Your task to perform on an android device: Clear all items from cart on target.com. Add razer deathadder to the cart on target.com, then select checkout. Image 0: 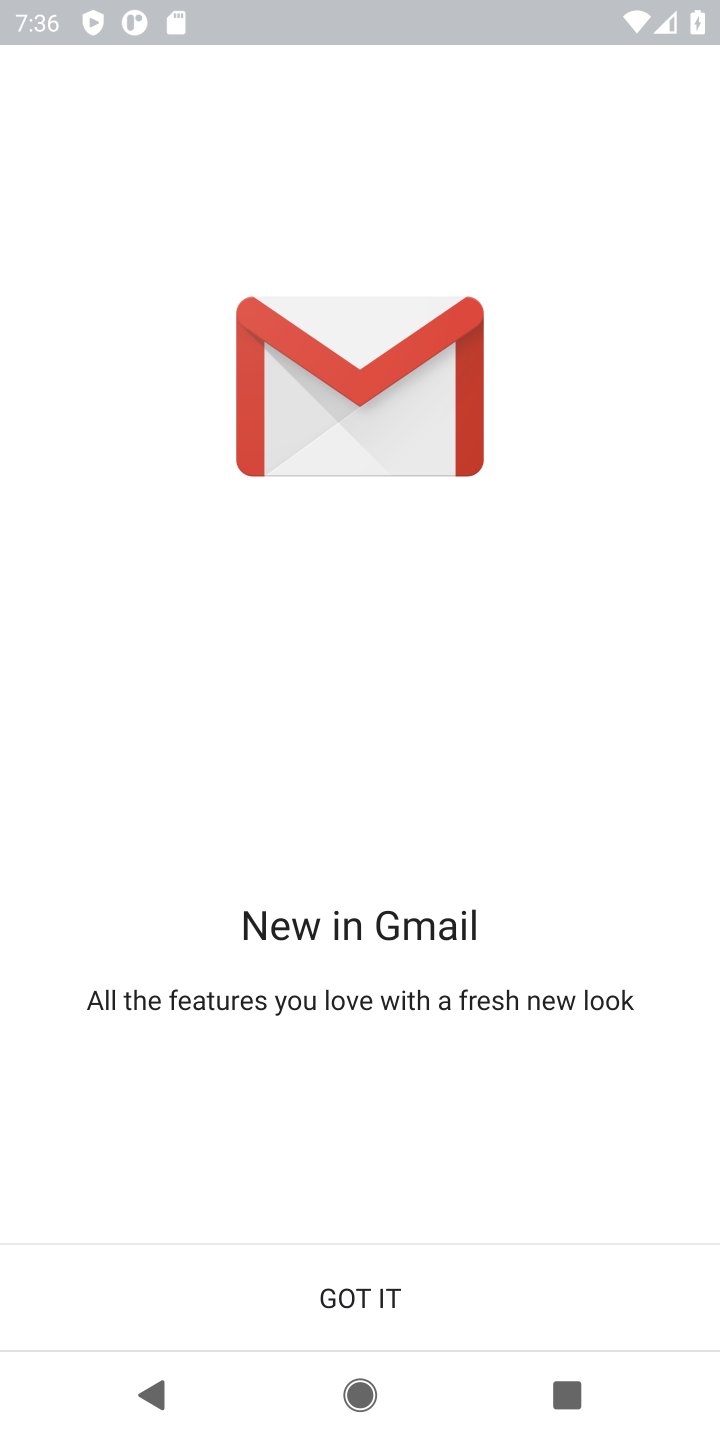
Step 0: press home button
Your task to perform on an android device: Clear all items from cart on target.com. Add razer deathadder to the cart on target.com, then select checkout. Image 1: 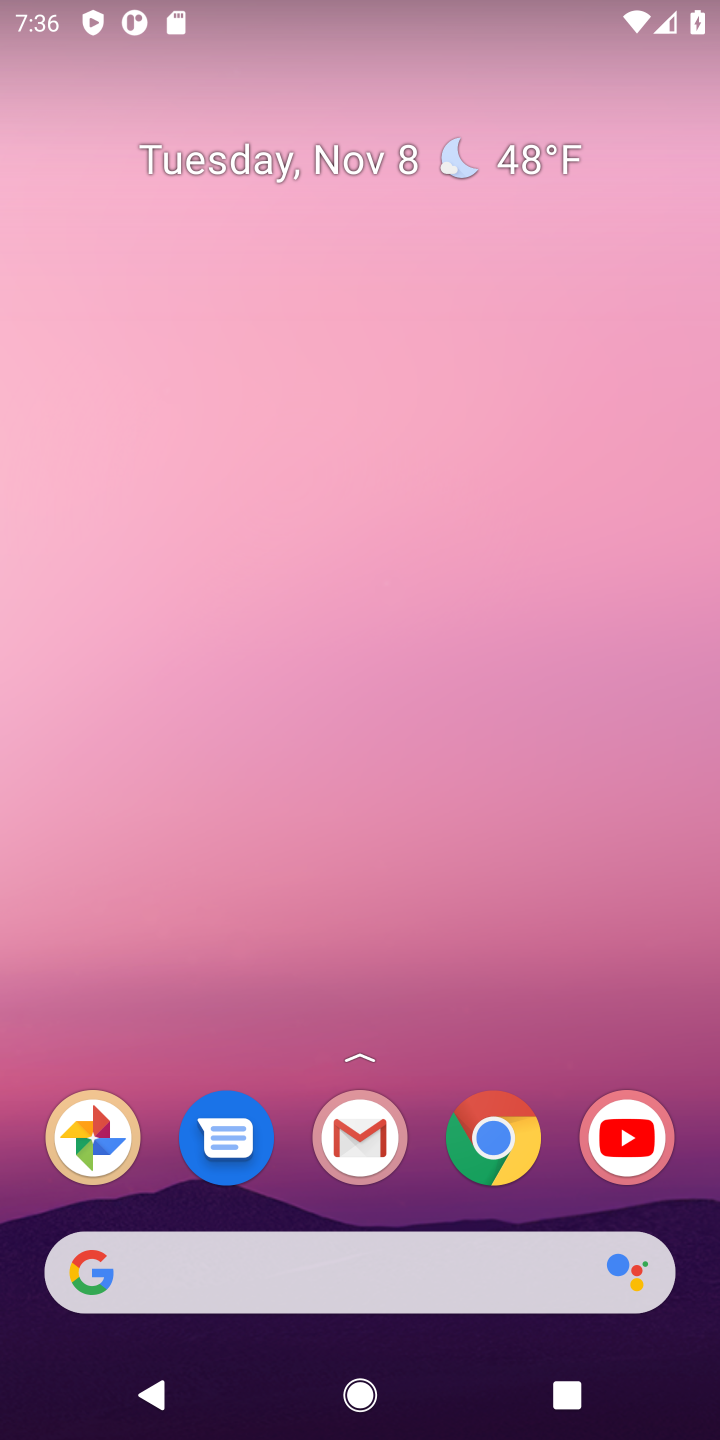
Step 1: click (483, 1135)
Your task to perform on an android device: Clear all items from cart on target.com. Add razer deathadder to the cart on target.com, then select checkout. Image 2: 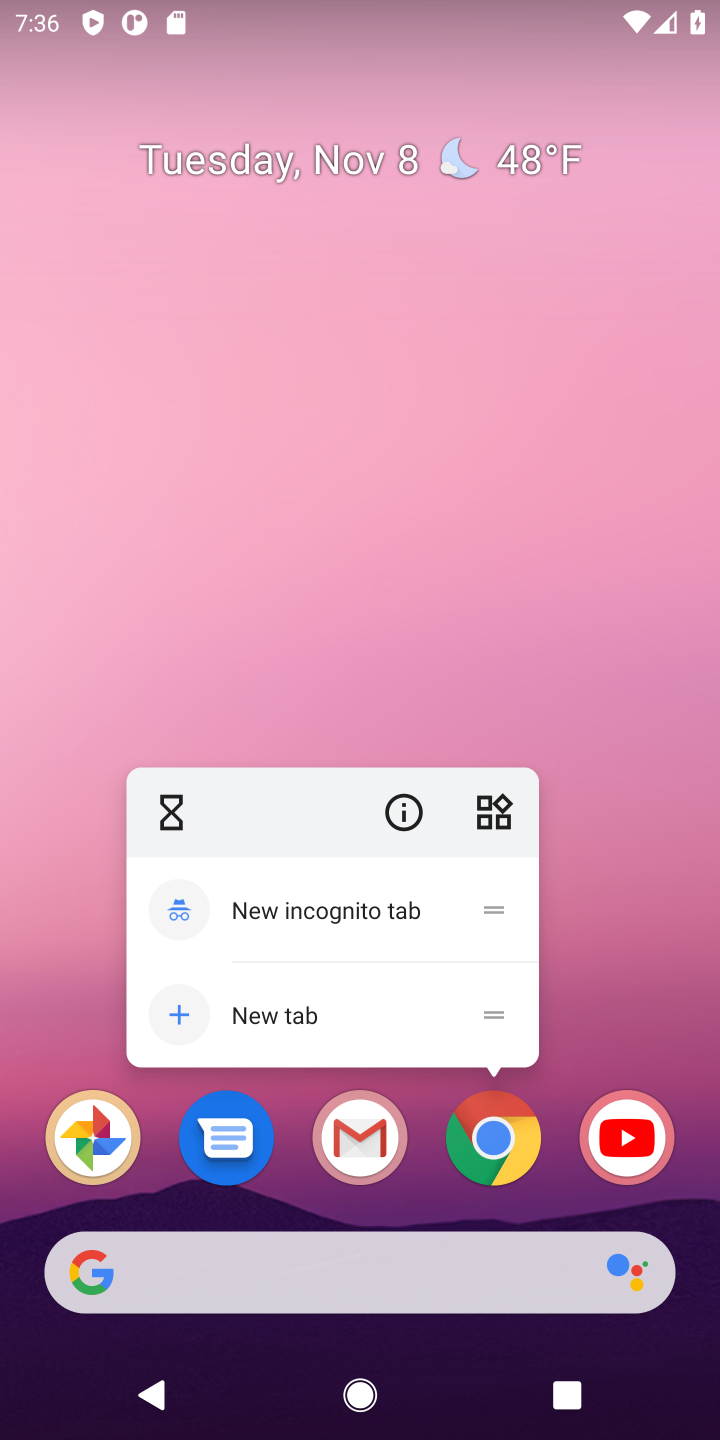
Step 2: click (506, 1151)
Your task to perform on an android device: Clear all items from cart on target.com. Add razer deathadder to the cart on target.com, then select checkout. Image 3: 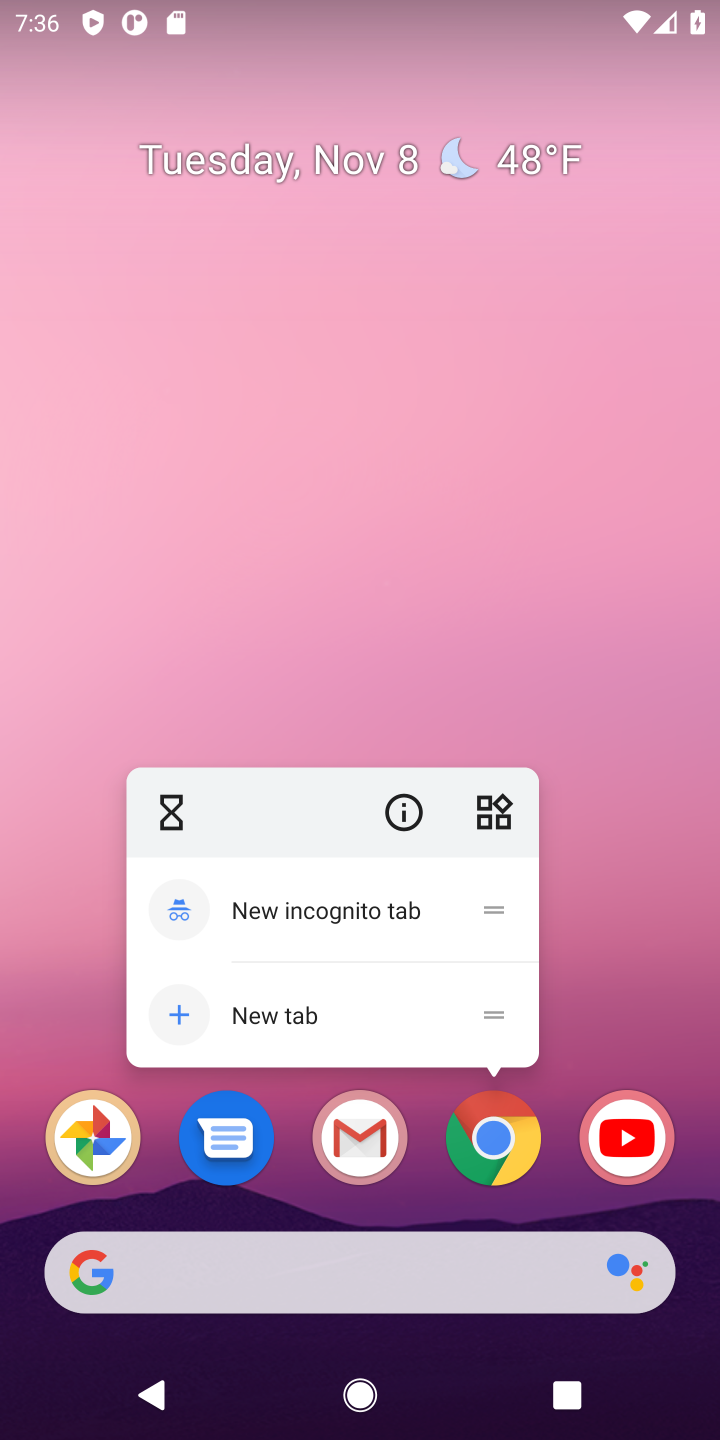
Step 3: click (487, 1131)
Your task to perform on an android device: Clear all items from cart on target.com. Add razer deathadder to the cart on target.com, then select checkout. Image 4: 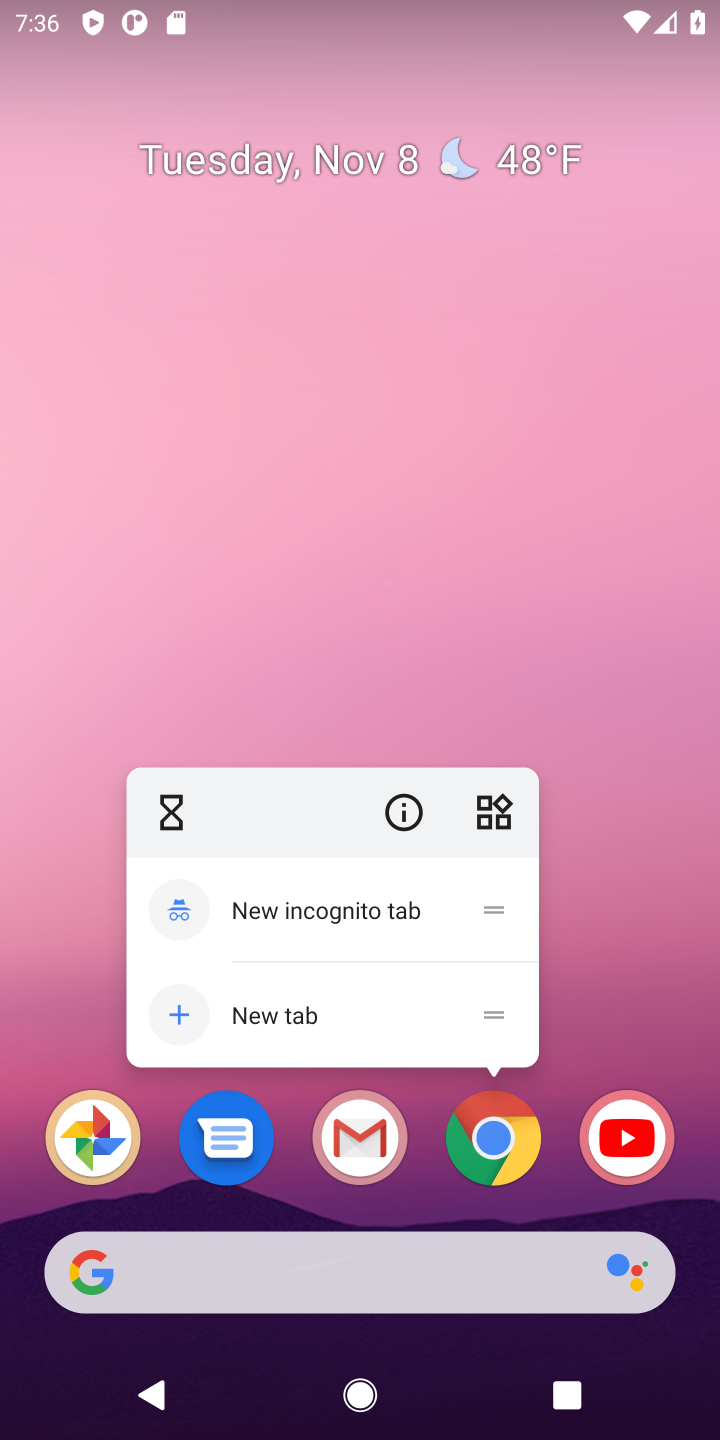
Step 4: click (487, 1132)
Your task to perform on an android device: Clear all items from cart on target.com. Add razer deathadder to the cart on target.com, then select checkout. Image 5: 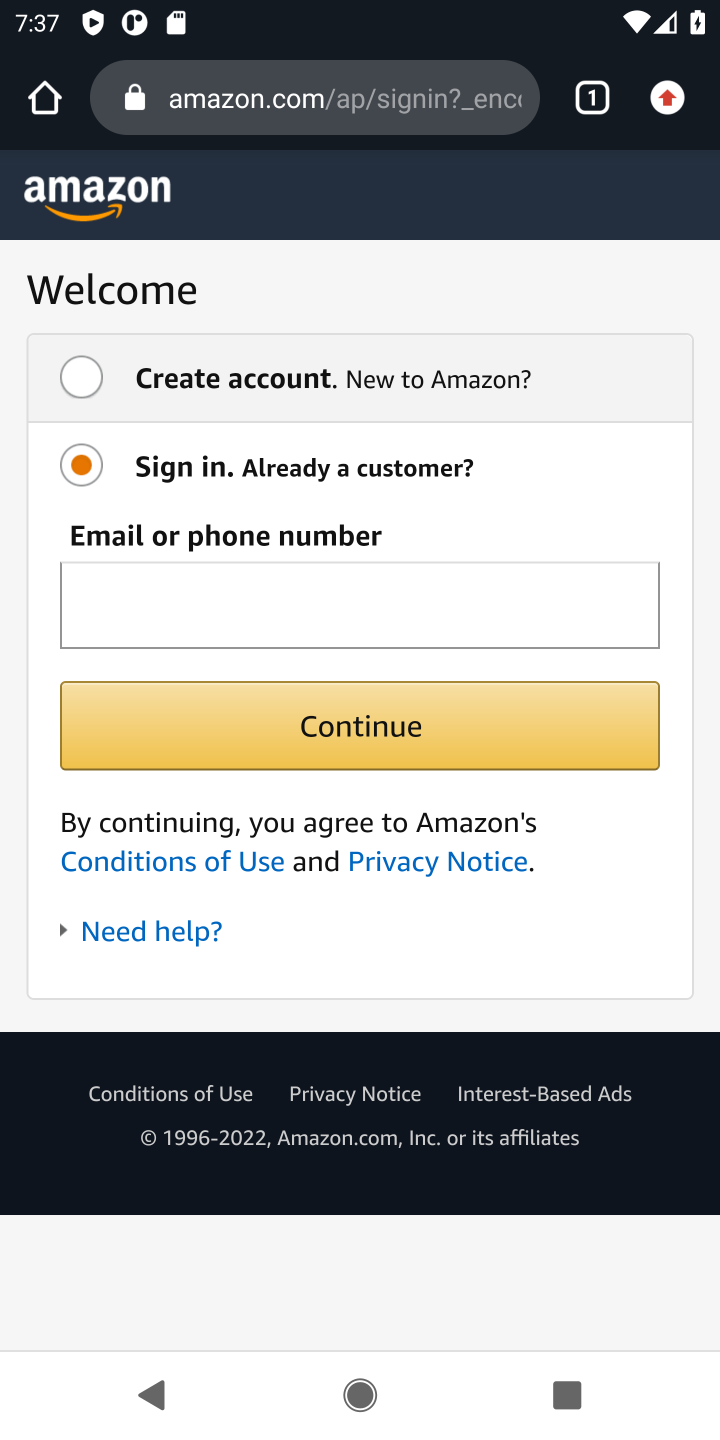
Step 5: click (371, 101)
Your task to perform on an android device: Clear all items from cart on target.com. Add razer deathadder to the cart on target.com, then select checkout. Image 6: 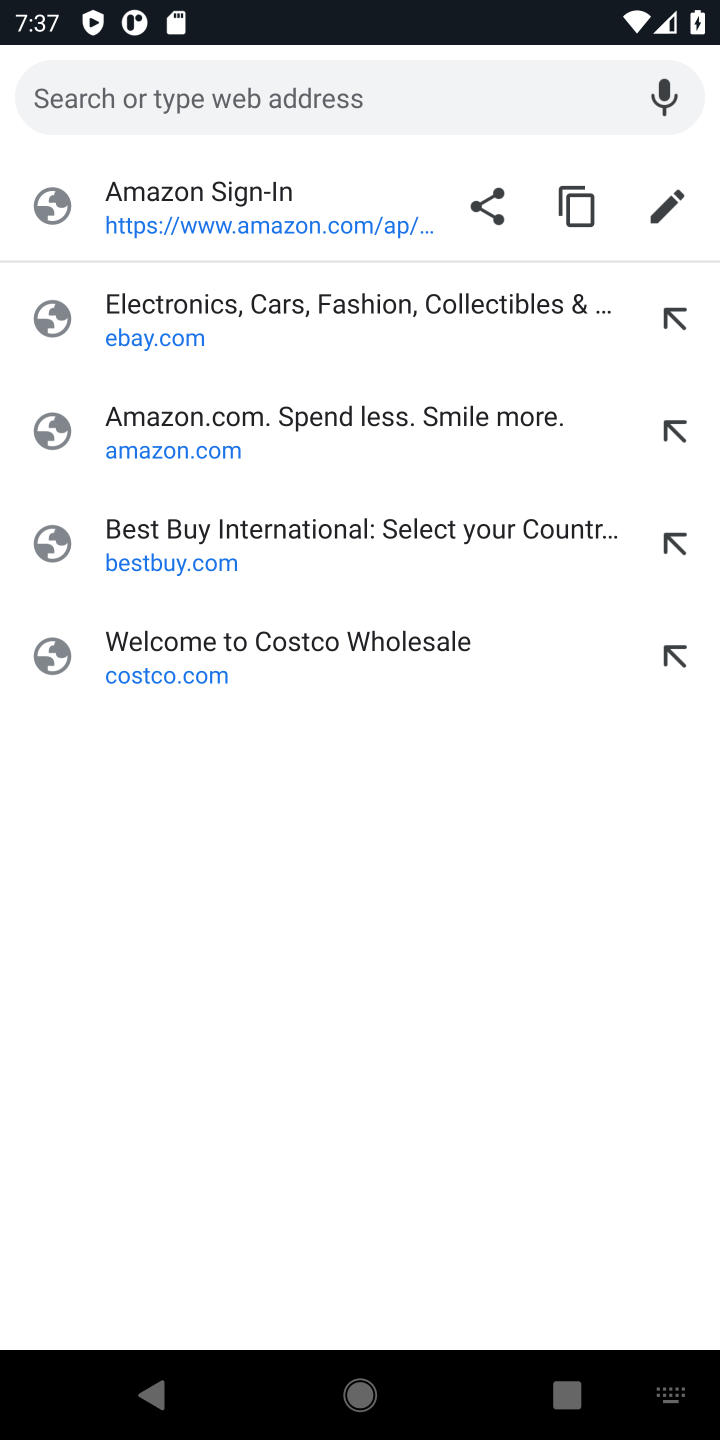
Step 6: type "target.com"
Your task to perform on an android device: Clear all items from cart on target.com. Add razer deathadder to the cart on target.com, then select checkout. Image 7: 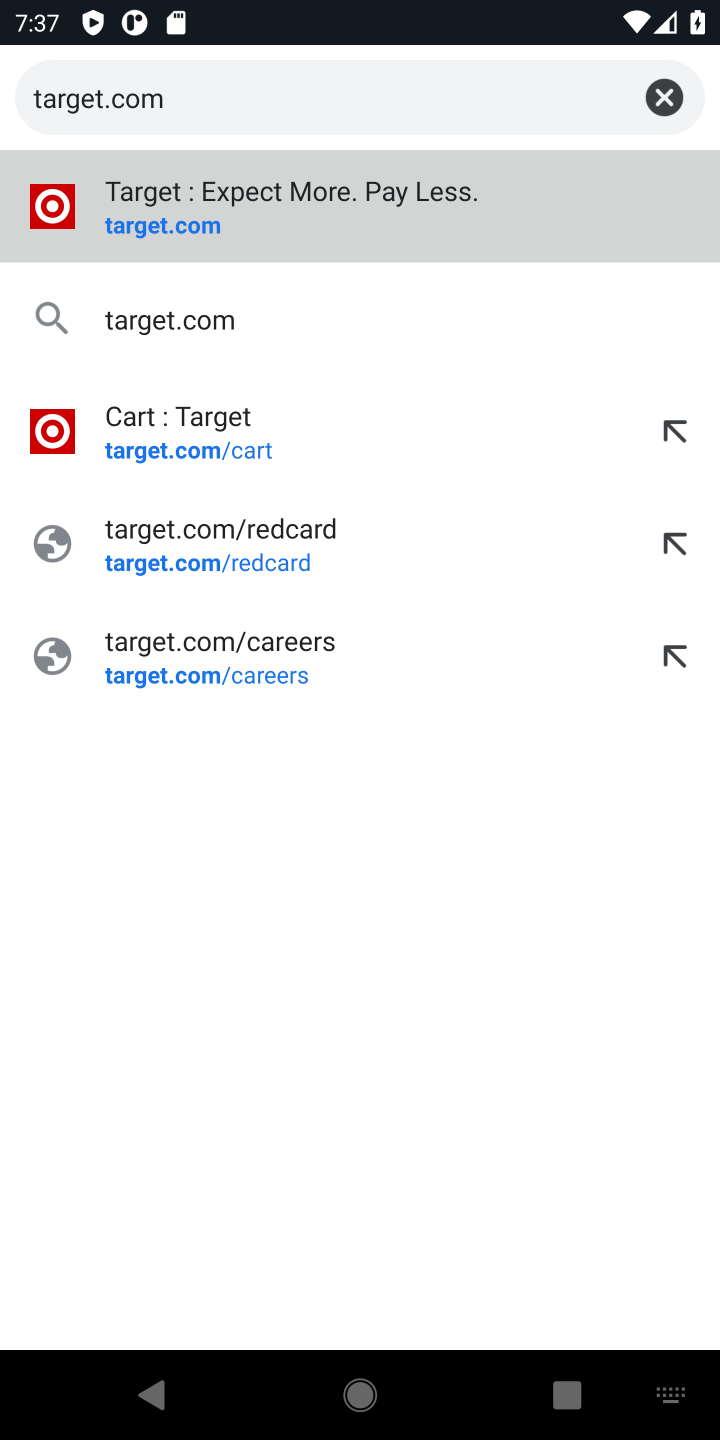
Step 7: press enter
Your task to perform on an android device: Clear all items from cart on target.com. Add razer deathadder to the cart on target.com, then select checkout. Image 8: 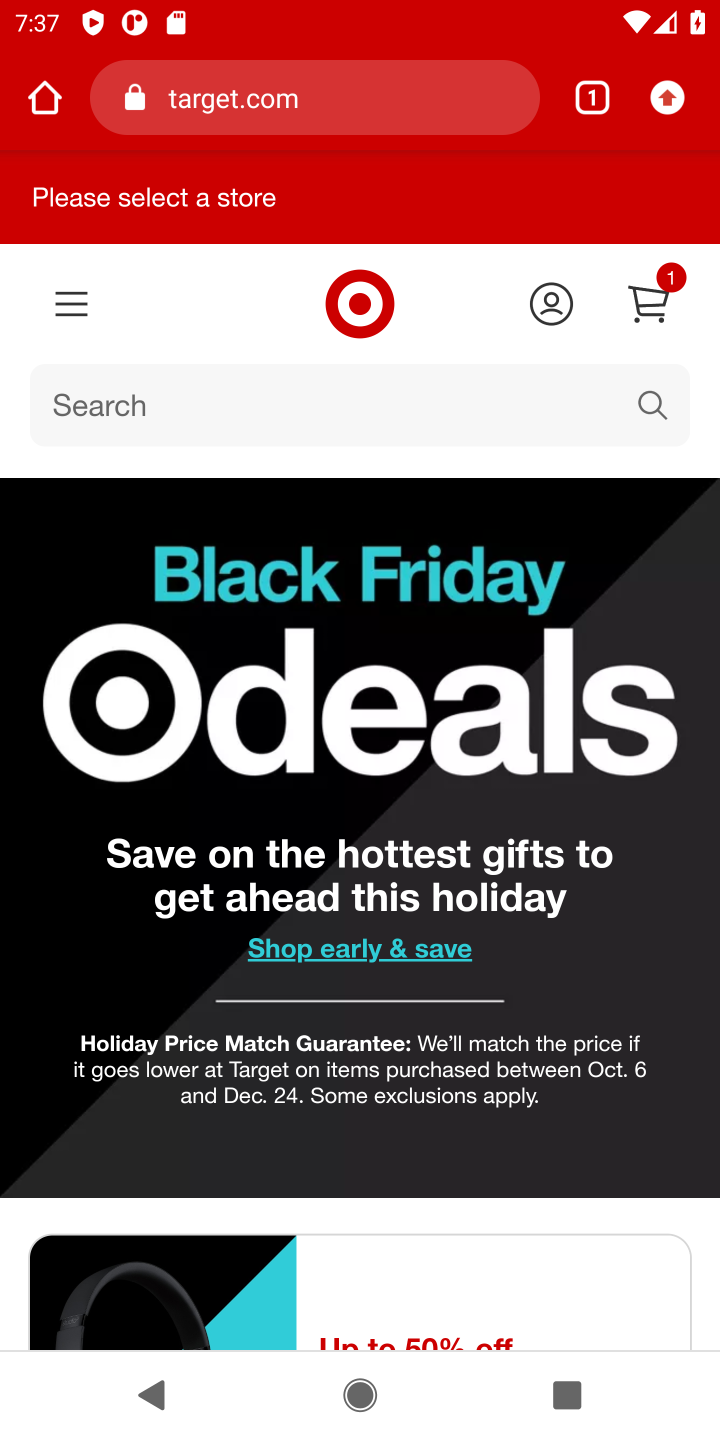
Step 8: click (175, 401)
Your task to perform on an android device: Clear all items from cart on target.com. Add razer deathadder to the cart on target.com, then select checkout. Image 9: 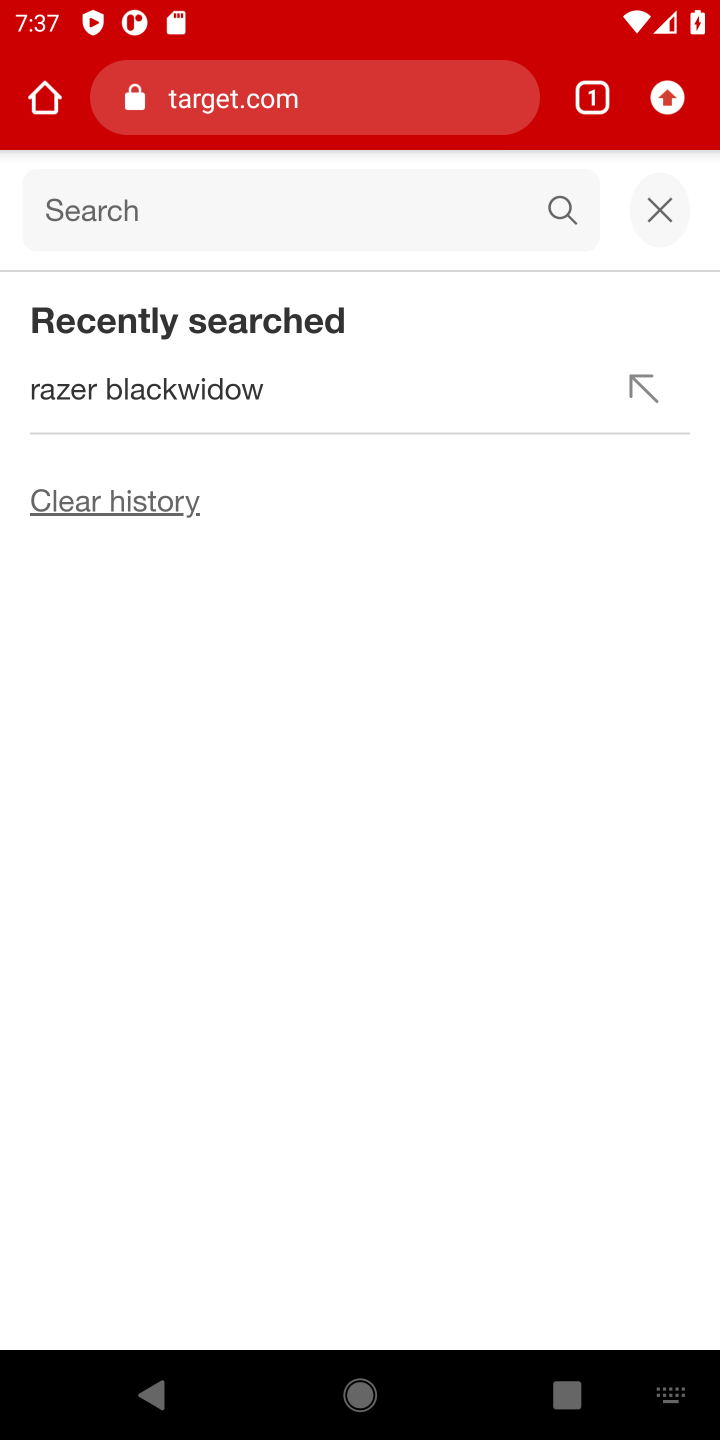
Step 9: type " razer deathadder"
Your task to perform on an android device: Clear all items from cart on target.com. Add razer deathadder to the cart on target.com, then select checkout. Image 10: 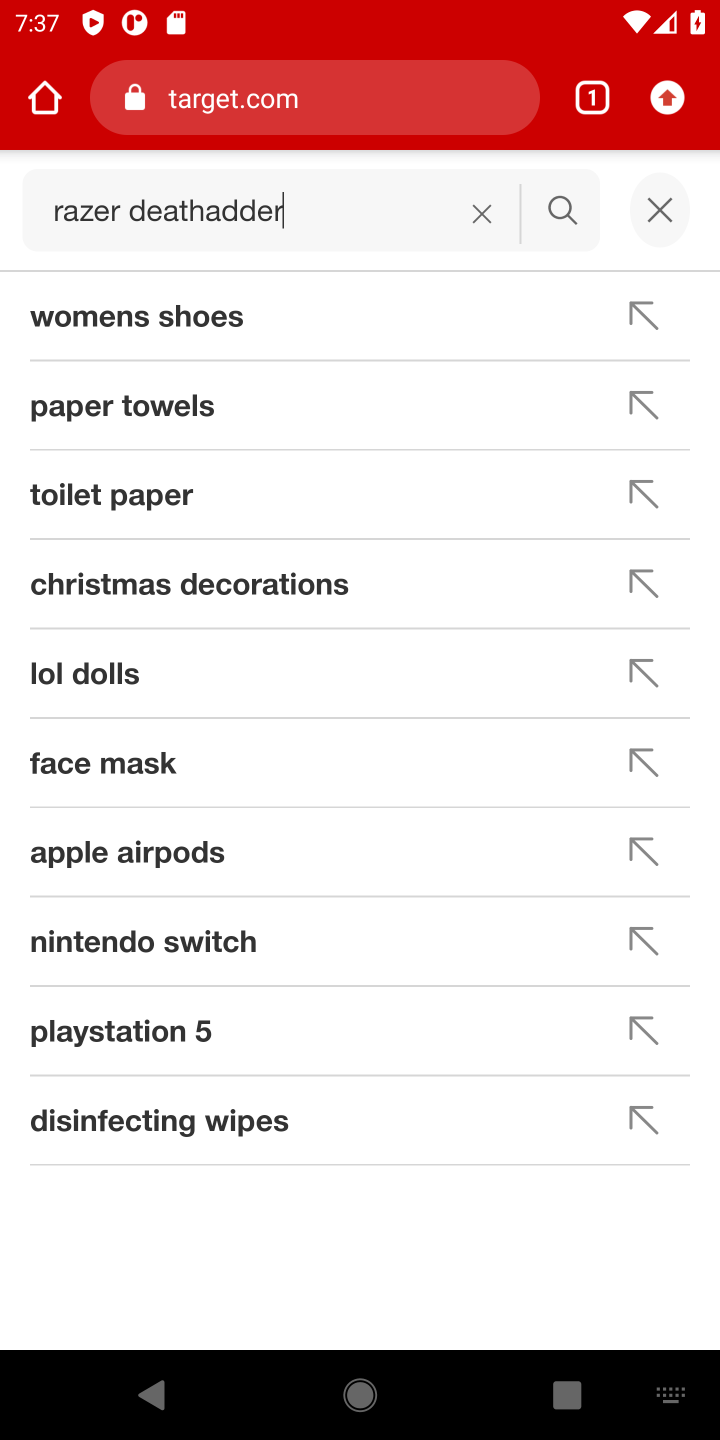
Step 10: press enter
Your task to perform on an android device: Clear all items from cart on target.com. Add razer deathadder to the cart on target.com, then select checkout. Image 11: 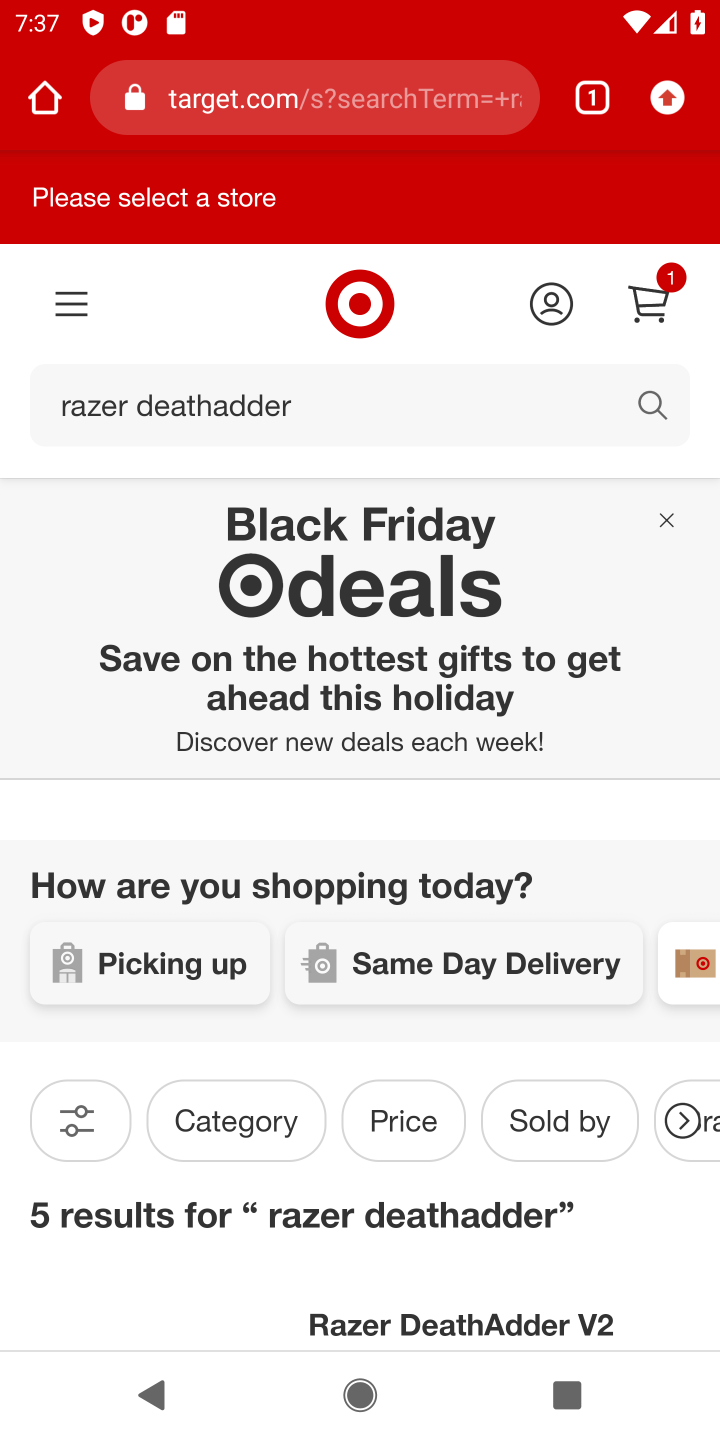
Step 11: drag from (211, 1256) to (509, 495)
Your task to perform on an android device: Clear all items from cart on target.com. Add razer deathadder to the cart on target.com, then select checkout. Image 12: 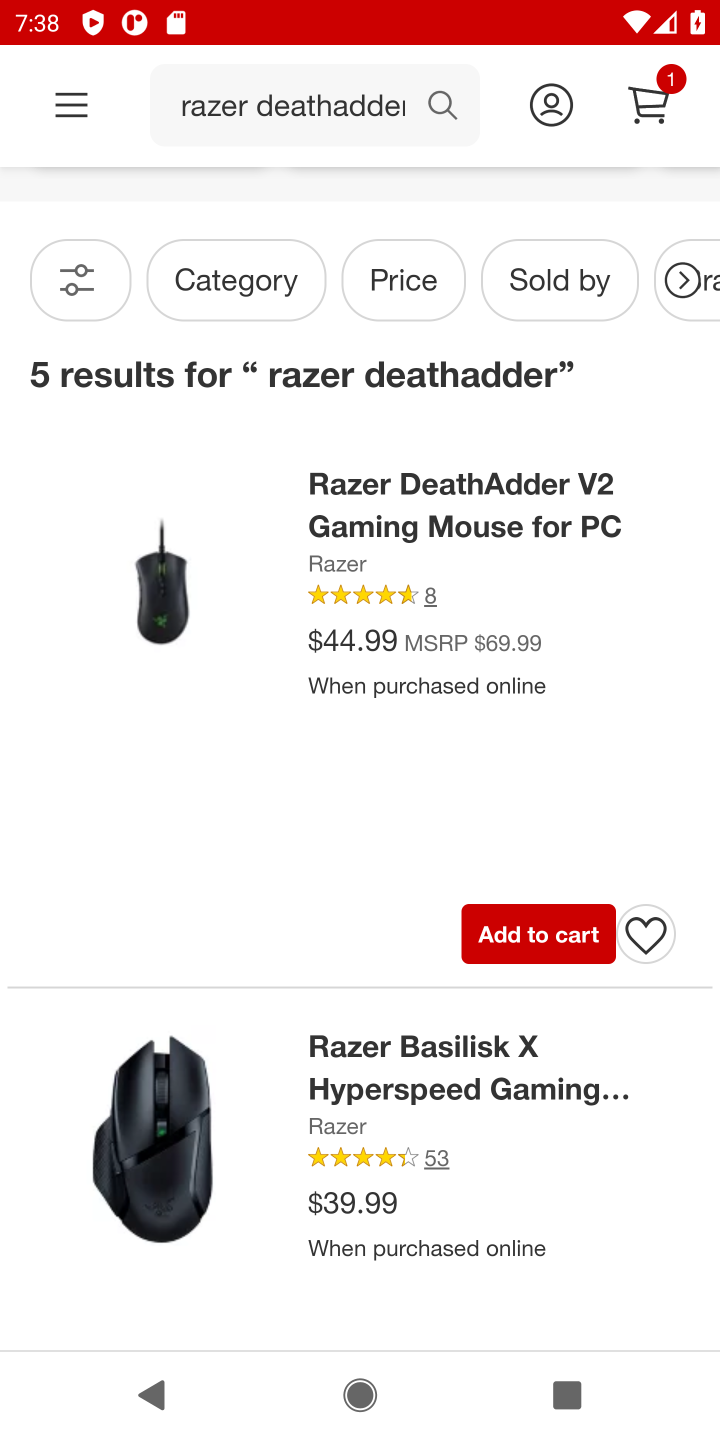
Step 12: click (551, 931)
Your task to perform on an android device: Clear all items from cart on target.com. Add razer deathadder to the cart on target.com, then select checkout. Image 13: 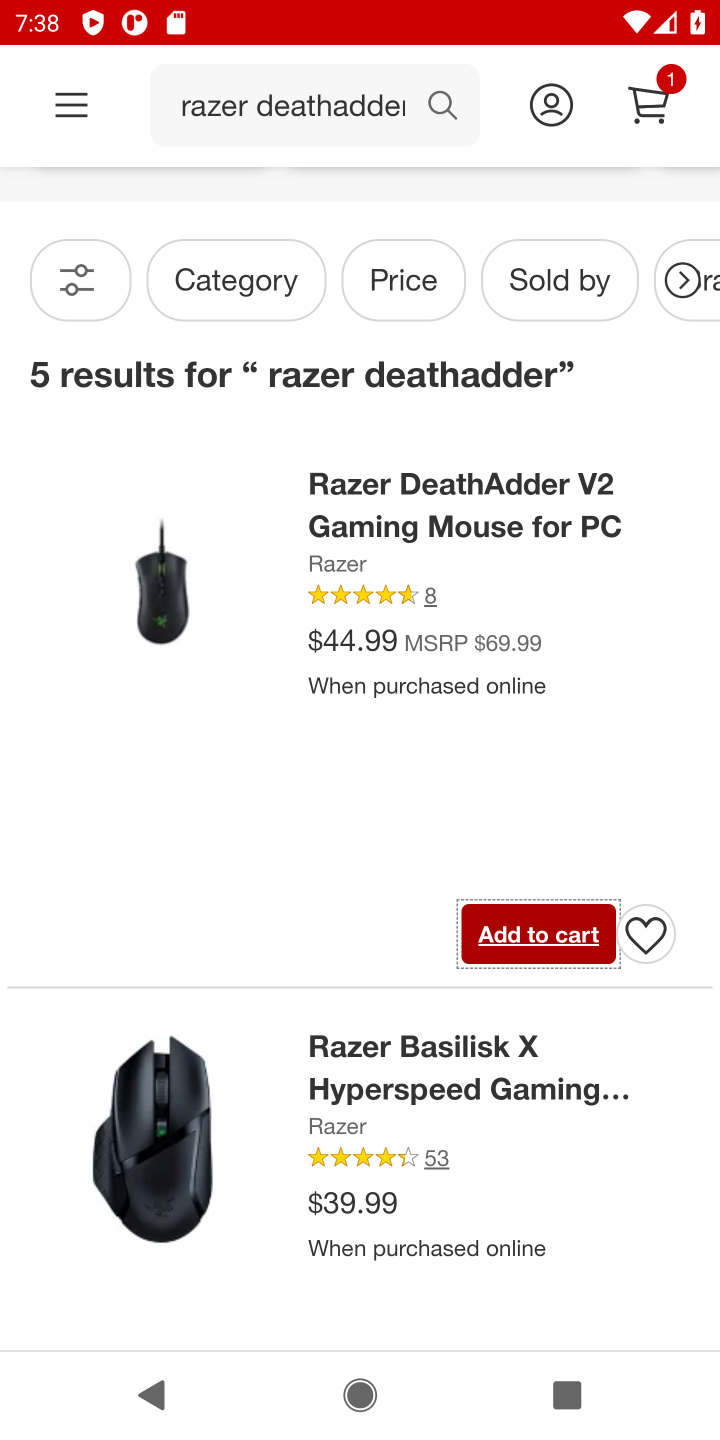
Step 13: click (535, 931)
Your task to perform on an android device: Clear all items from cart on target.com. Add razer deathadder to the cart on target.com, then select checkout. Image 14: 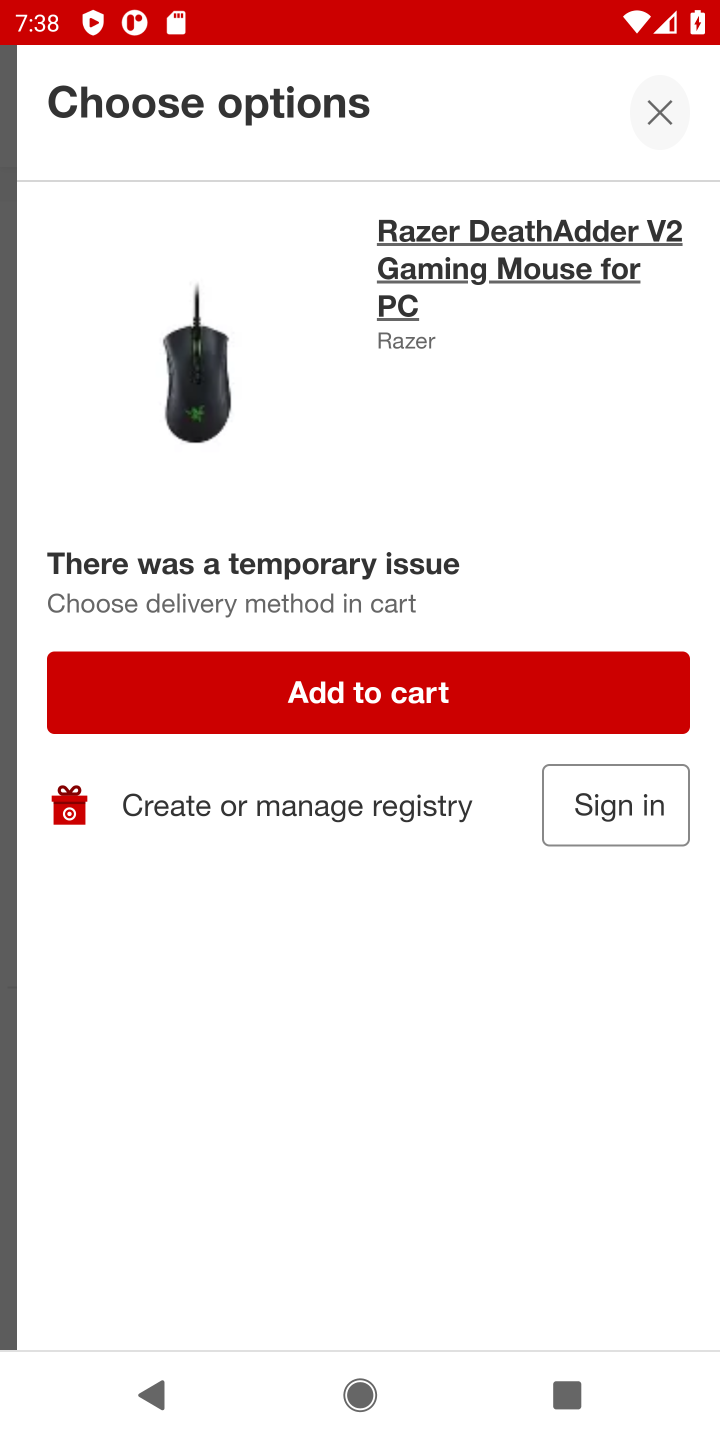
Step 14: click (344, 697)
Your task to perform on an android device: Clear all items from cart on target.com. Add razer deathadder to the cart on target.com, then select checkout. Image 15: 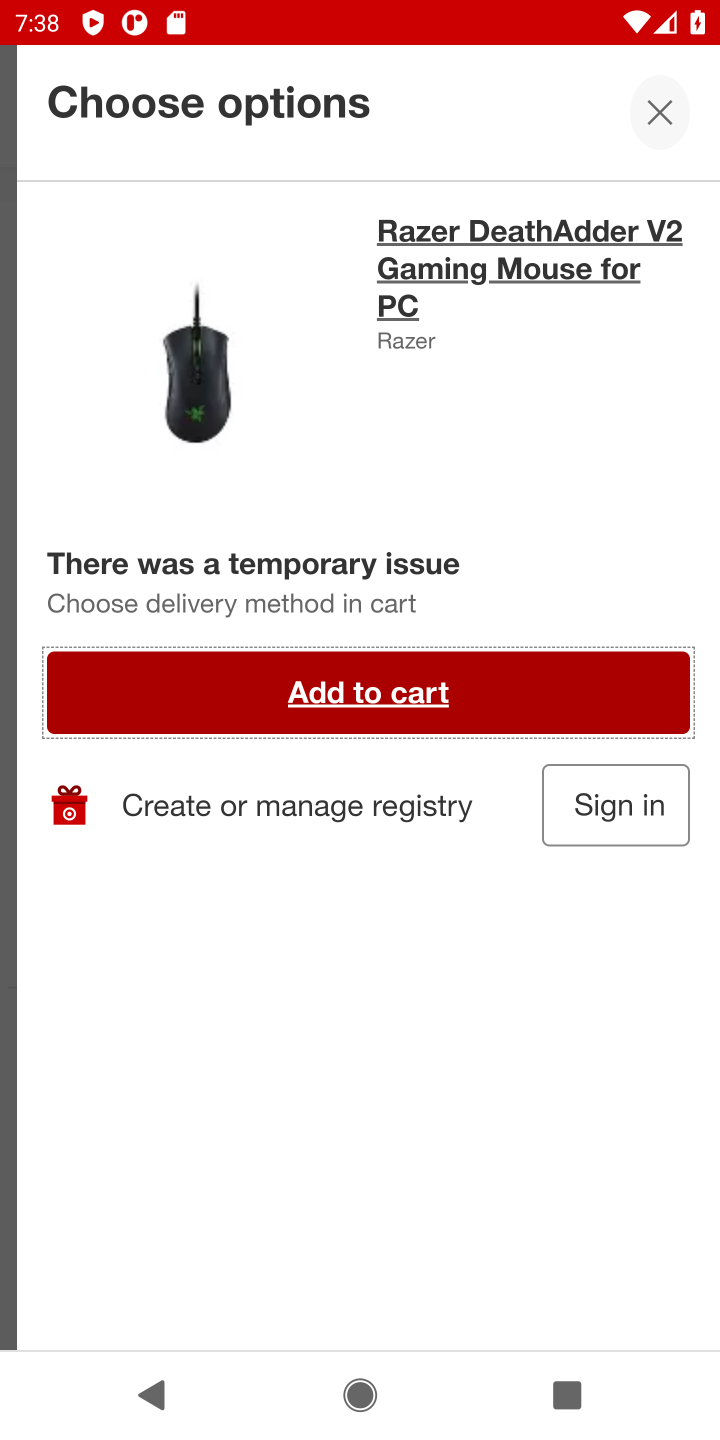
Step 15: click (352, 690)
Your task to perform on an android device: Clear all items from cart on target.com. Add razer deathadder to the cart on target.com, then select checkout. Image 16: 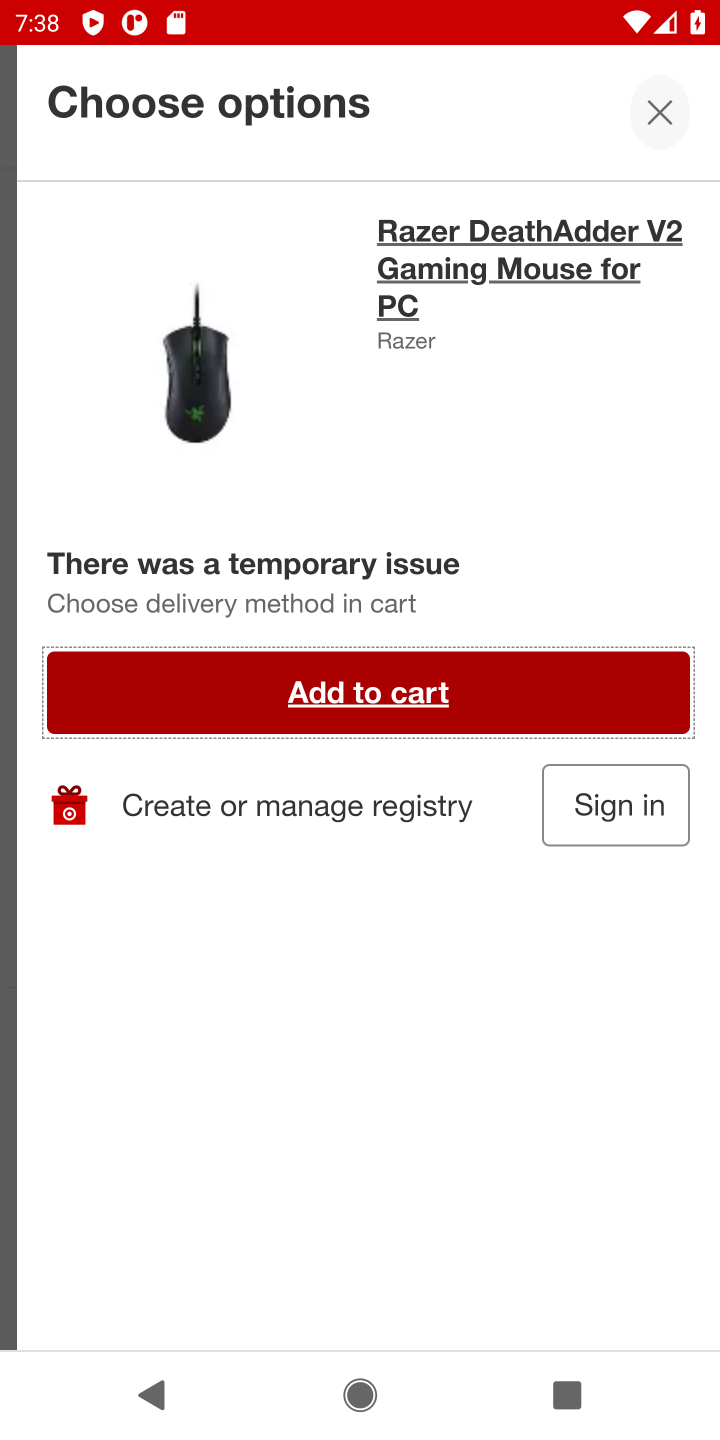
Step 16: click (377, 688)
Your task to perform on an android device: Clear all items from cart on target.com. Add razer deathadder to the cart on target.com, then select checkout. Image 17: 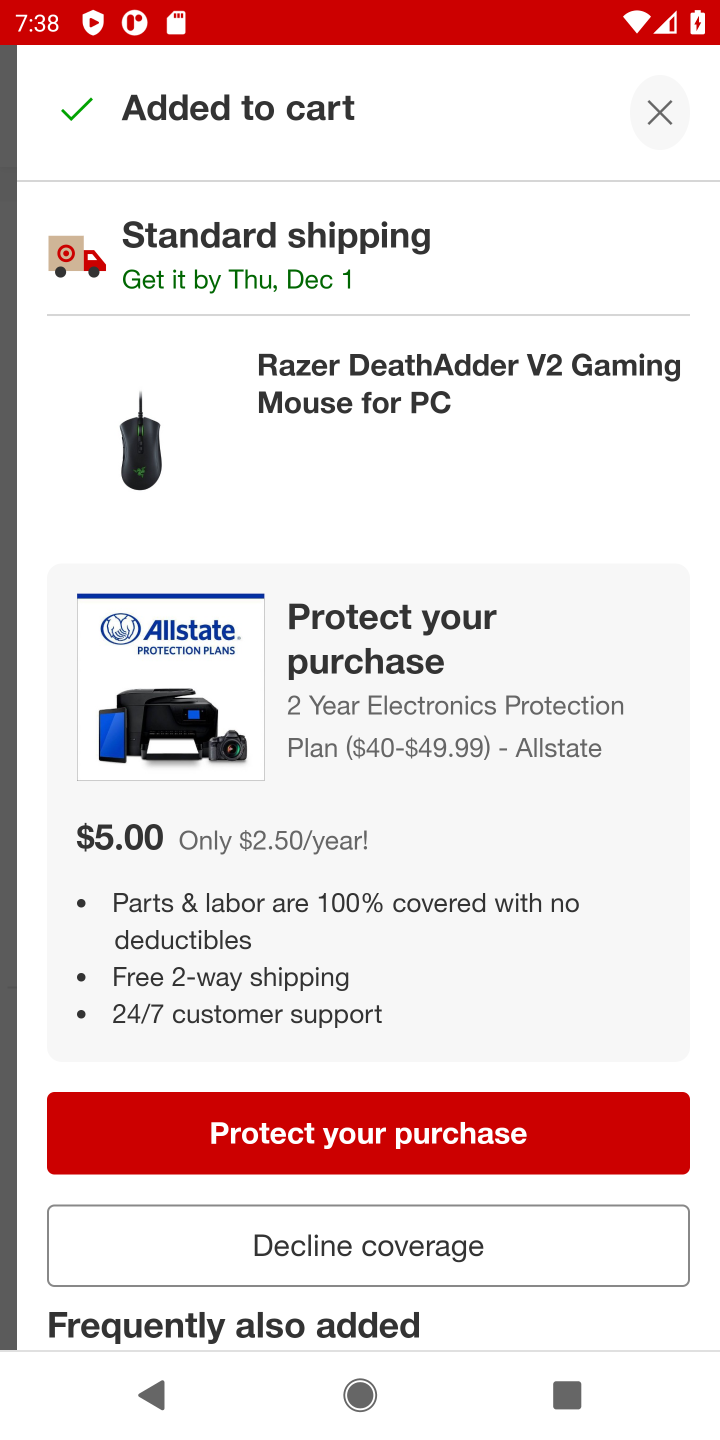
Step 17: click (658, 105)
Your task to perform on an android device: Clear all items from cart on target.com. Add razer deathadder to the cart on target.com, then select checkout. Image 18: 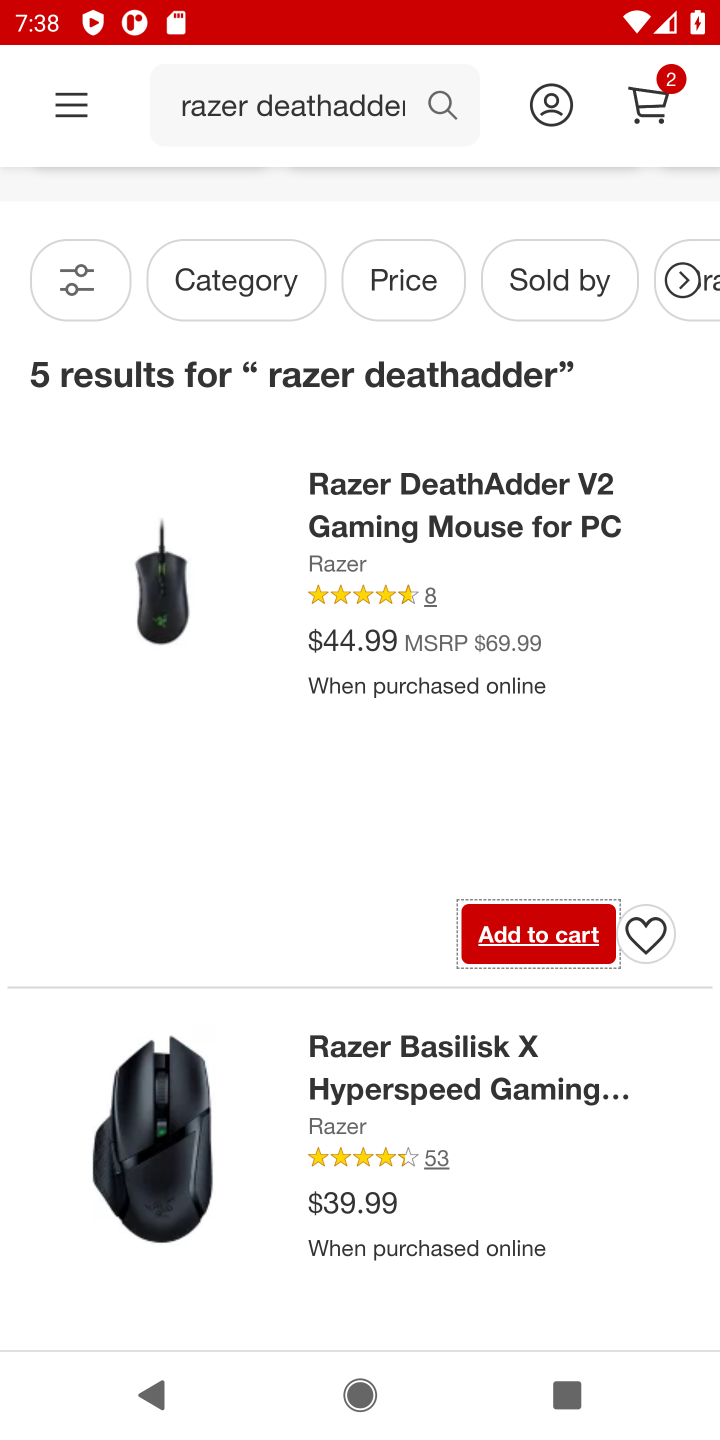
Step 18: click (650, 93)
Your task to perform on an android device: Clear all items from cart on target.com. Add razer deathadder to the cart on target.com, then select checkout. Image 19: 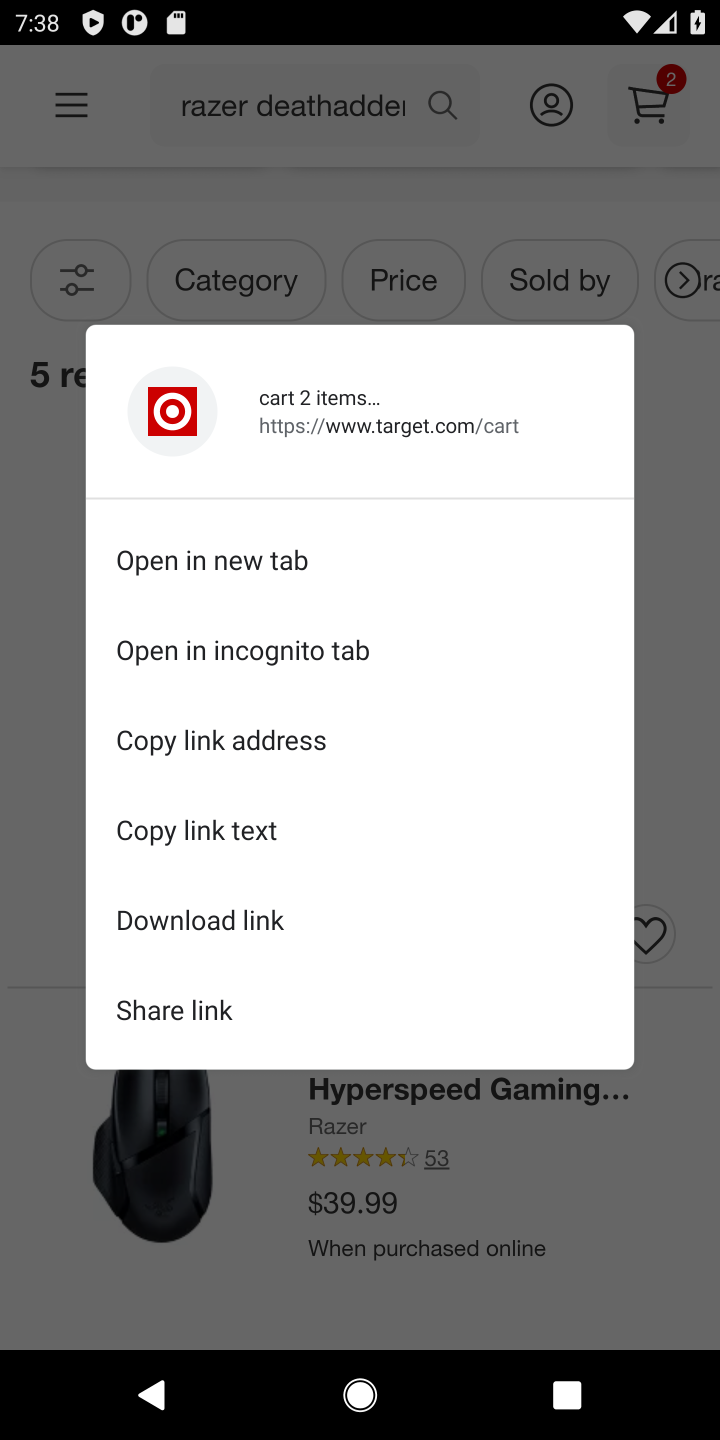
Step 19: click (660, 100)
Your task to perform on an android device: Clear all items from cart on target.com. Add razer deathadder to the cart on target.com, then select checkout. Image 20: 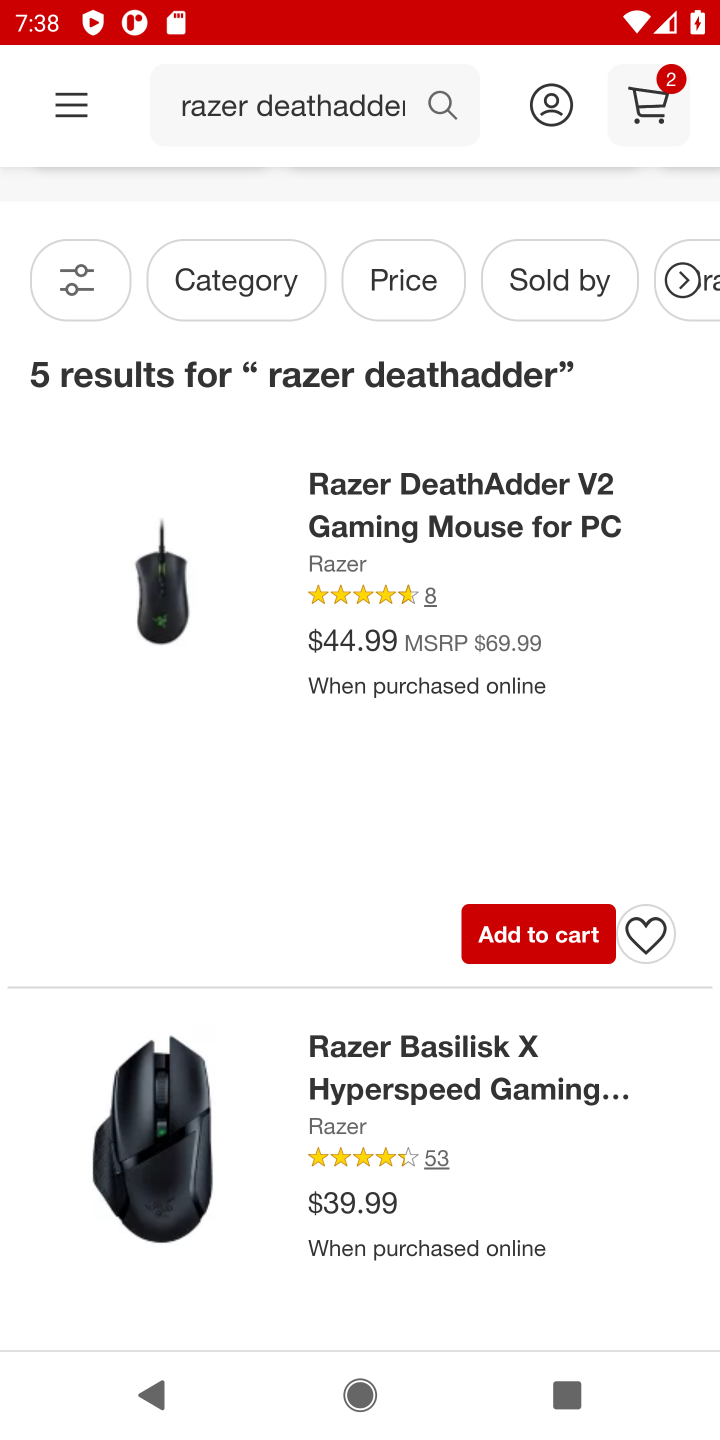
Step 20: click (656, 88)
Your task to perform on an android device: Clear all items from cart on target.com. Add razer deathadder to the cart on target.com, then select checkout. Image 21: 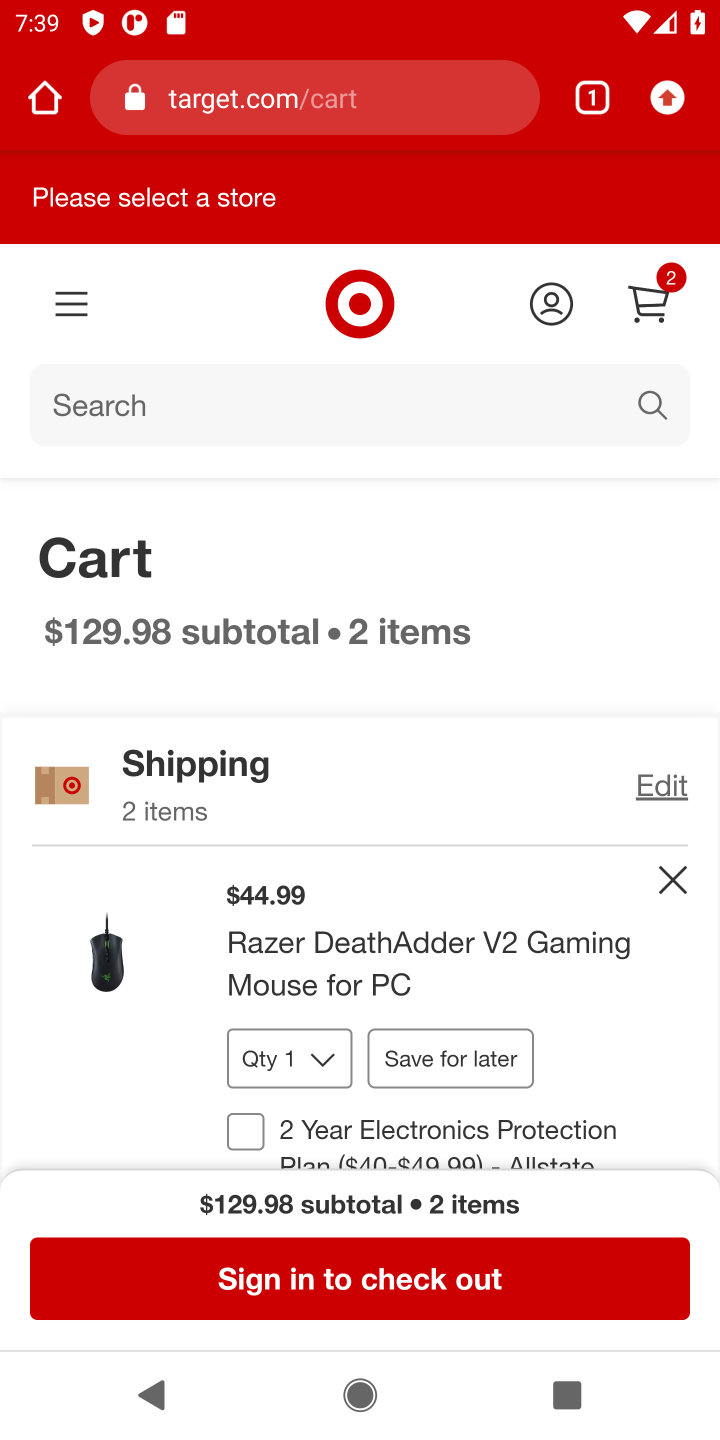
Step 21: drag from (162, 1068) to (596, 226)
Your task to perform on an android device: Clear all items from cart on target.com. Add razer deathadder to the cart on target.com, then select checkout. Image 22: 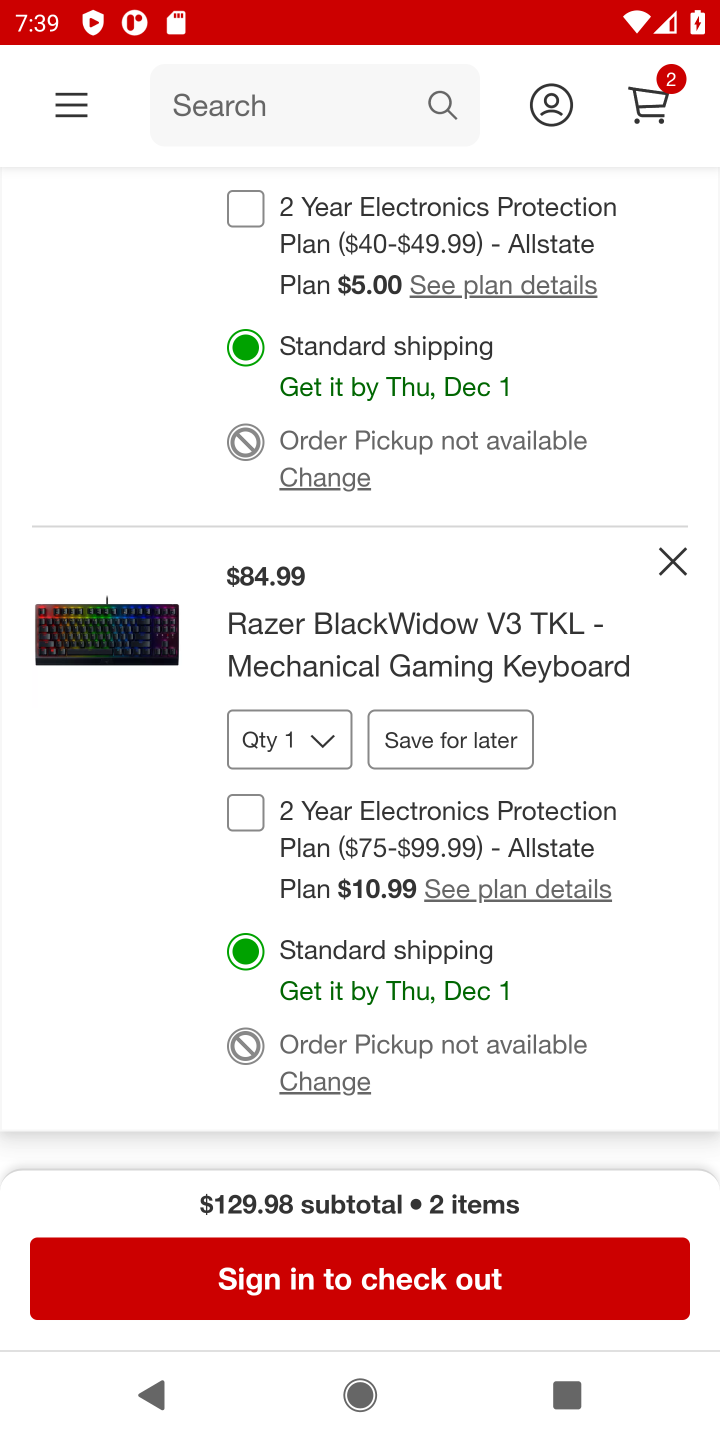
Step 22: click (668, 550)
Your task to perform on an android device: Clear all items from cart on target.com. Add razer deathadder to the cart on target.com, then select checkout. Image 23: 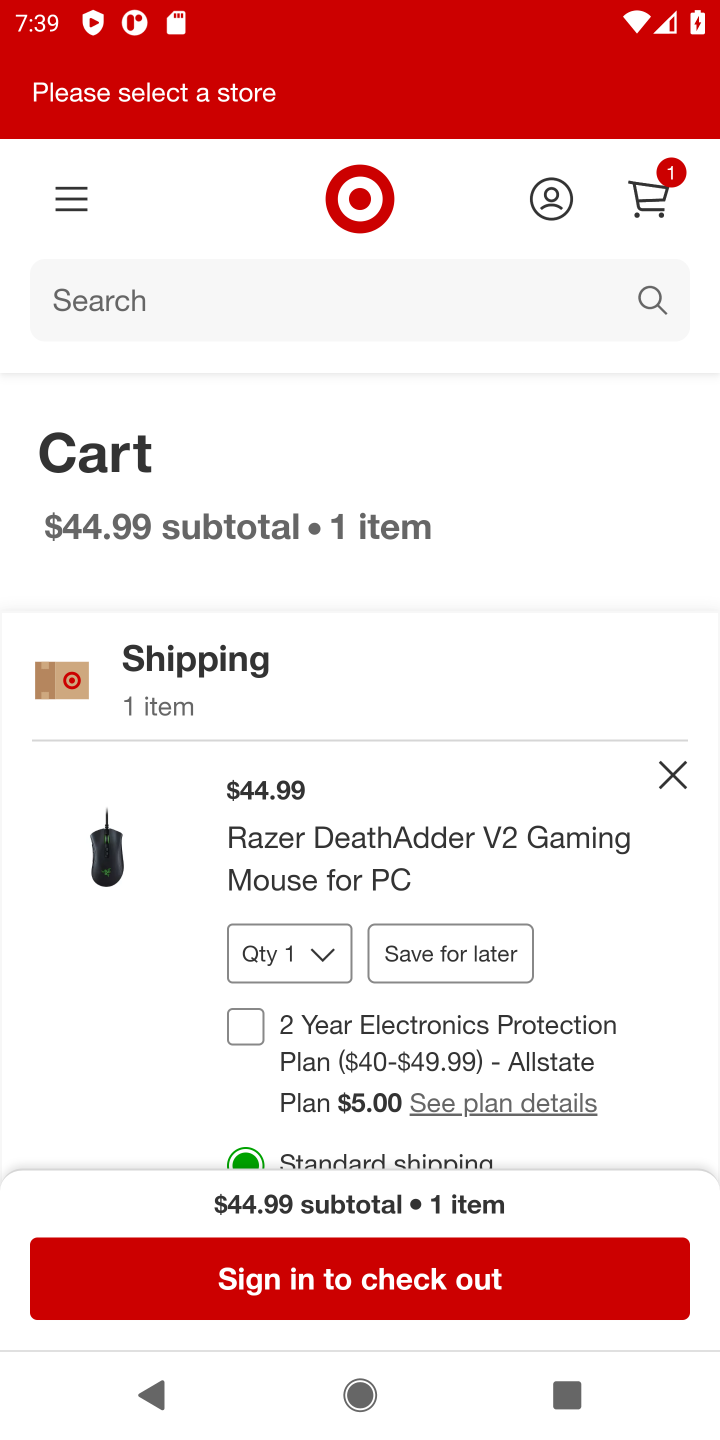
Step 23: click (400, 1287)
Your task to perform on an android device: Clear all items from cart on target.com. Add razer deathadder to the cart on target.com, then select checkout. Image 24: 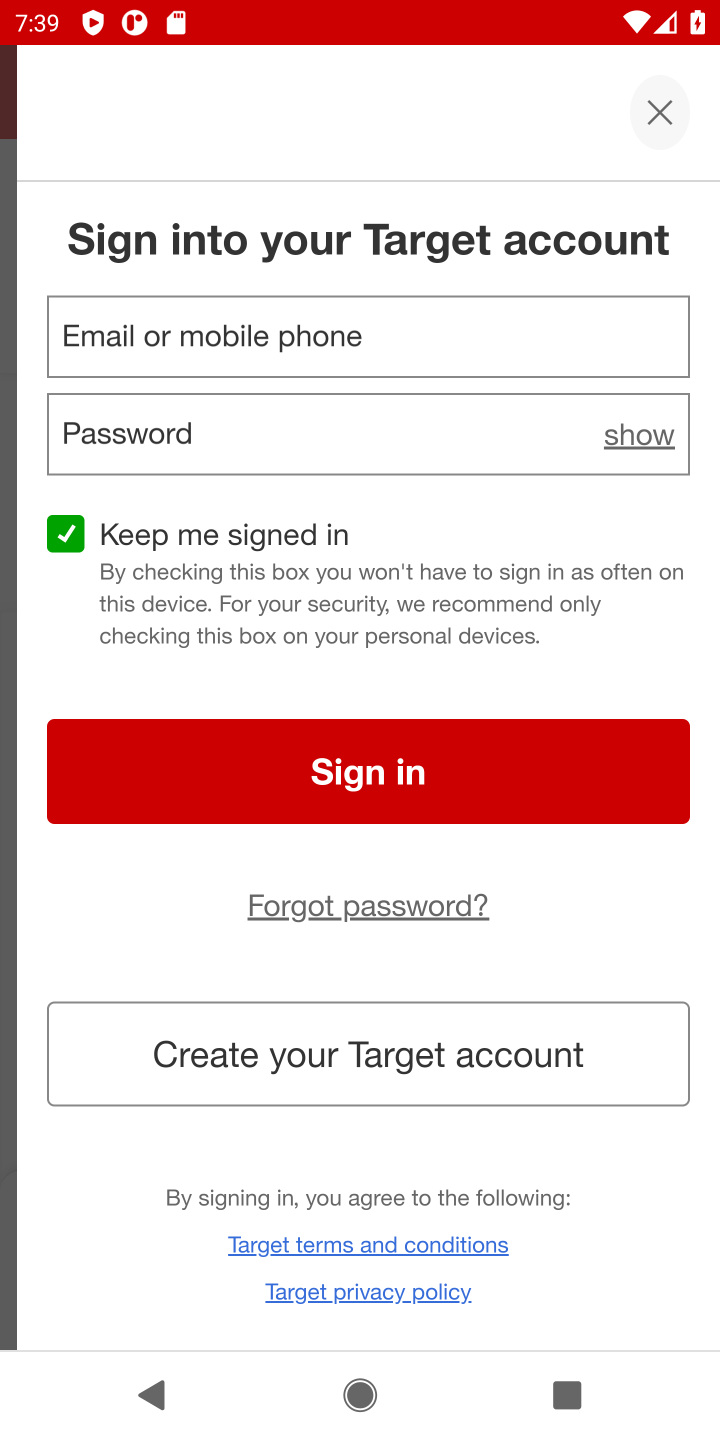
Step 24: task complete